Your task to perform on an android device: open app "Expedia: Hotels, Flights & Car" Image 0: 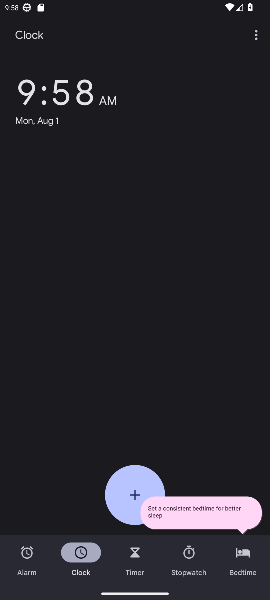
Step 0: press home button
Your task to perform on an android device: open app "Expedia: Hotels, Flights & Car" Image 1: 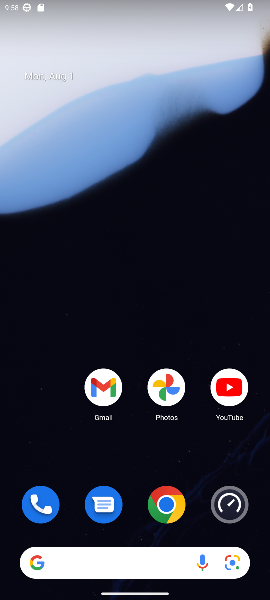
Step 1: drag from (128, 471) to (138, 48)
Your task to perform on an android device: open app "Expedia: Hotels, Flights & Car" Image 2: 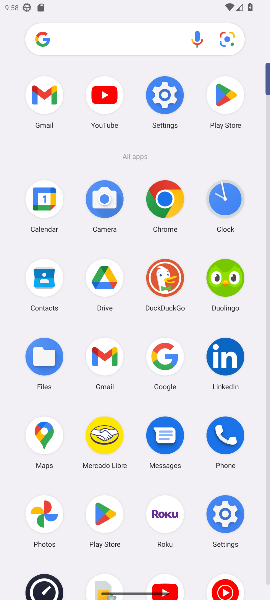
Step 2: click (213, 87)
Your task to perform on an android device: open app "Expedia: Hotels, Flights & Car" Image 3: 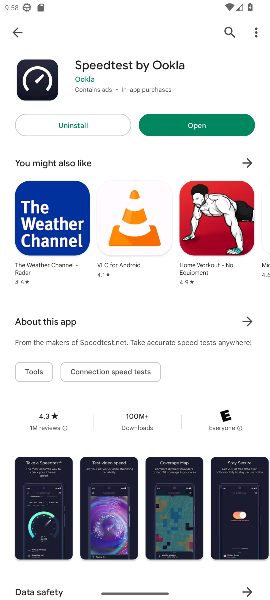
Step 3: click (232, 28)
Your task to perform on an android device: open app "Expedia: Hotels, Flights & Car" Image 4: 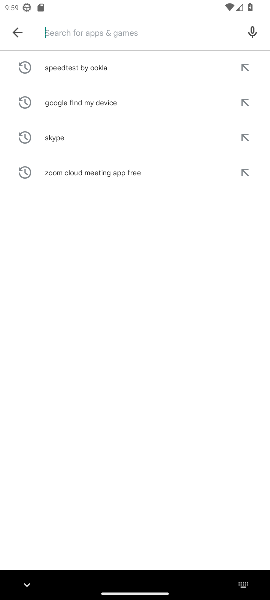
Step 4: type "expedia: hotels, flights & car"
Your task to perform on an android device: open app "Expedia: Hotels, Flights & Car" Image 5: 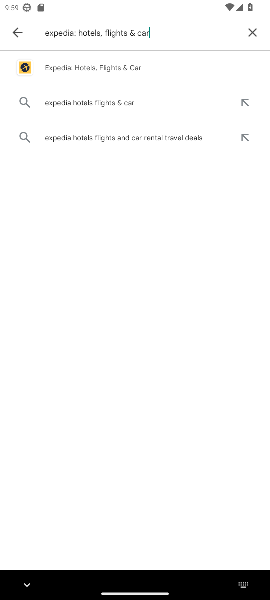
Step 5: click (103, 72)
Your task to perform on an android device: open app "Expedia: Hotels, Flights & Car" Image 6: 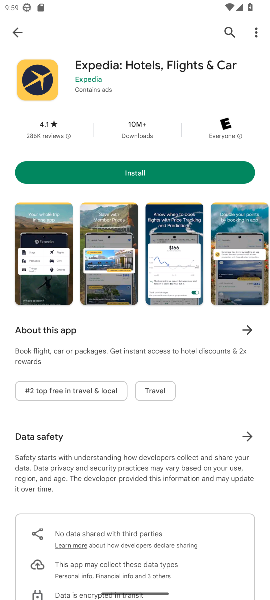
Step 6: task complete